Your task to perform on an android device: allow cookies in the chrome app Image 0: 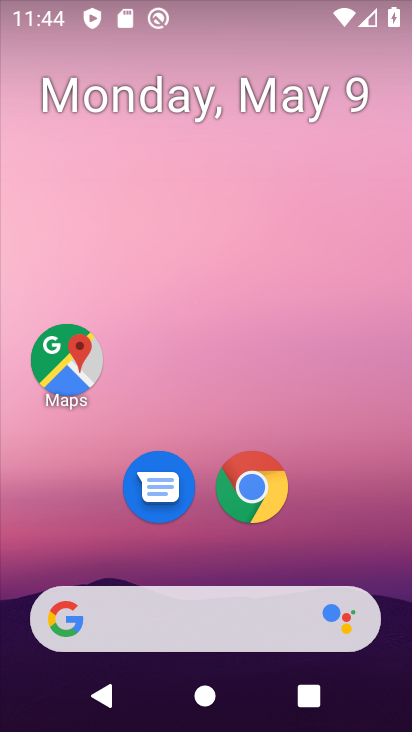
Step 0: click (240, 485)
Your task to perform on an android device: allow cookies in the chrome app Image 1: 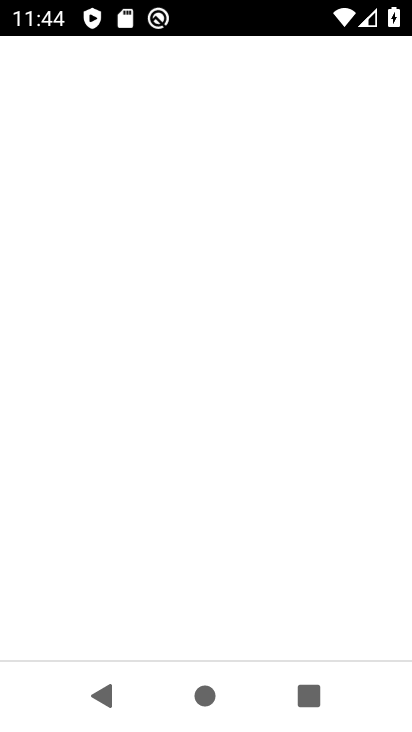
Step 1: click (263, 486)
Your task to perform on an android device: allow cookies in the chrome app Image 2: 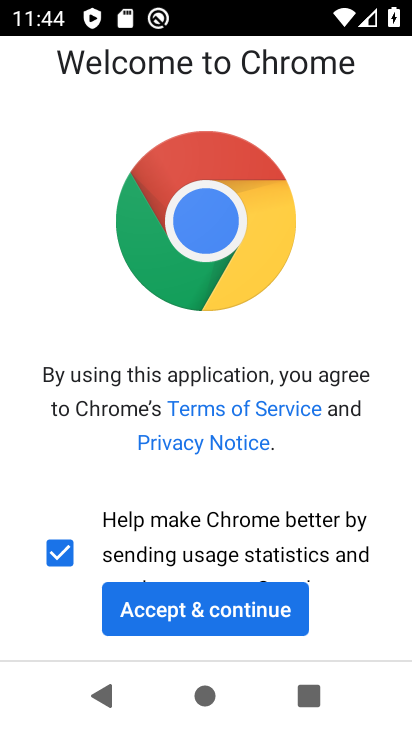
Step 2: click (247, 612)
Your task to perform on an android device: allow cookies in the chrome app Image 3: 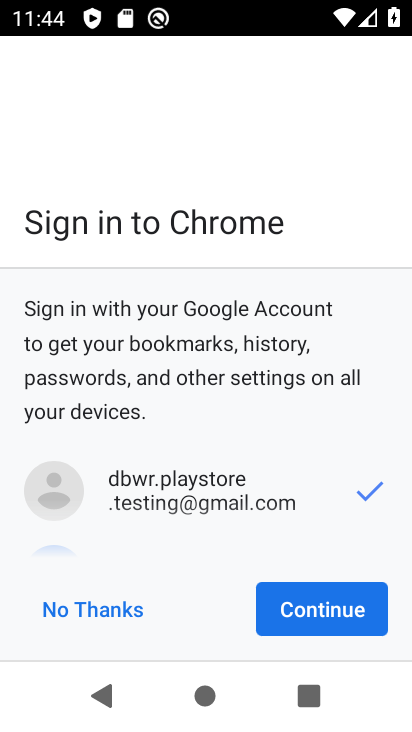
Step 3: click (302, 628)
Your task to perform on an android device: allow cookies in the chrome app Image 4: 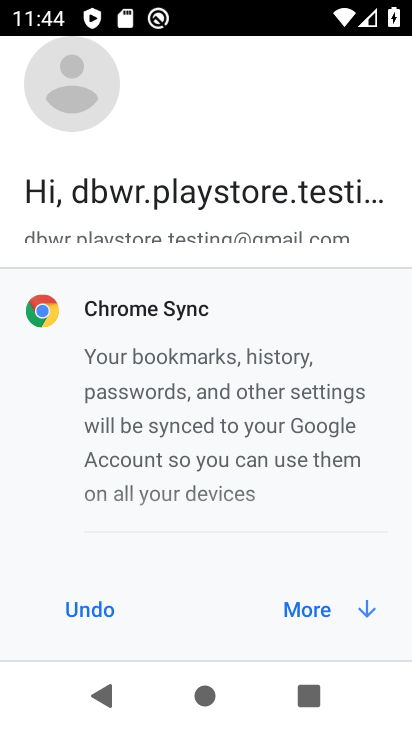
Step 4: click (362, 621)
Your task to perform on an android device: allow cookies in the chrome app Image 5: 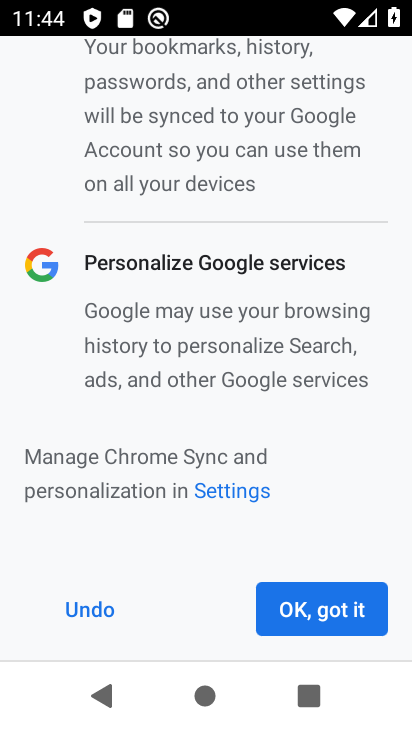
Step 5: click (361, 617)
Your task to perform on an android device: allow cookies in the chrome app Image 6: 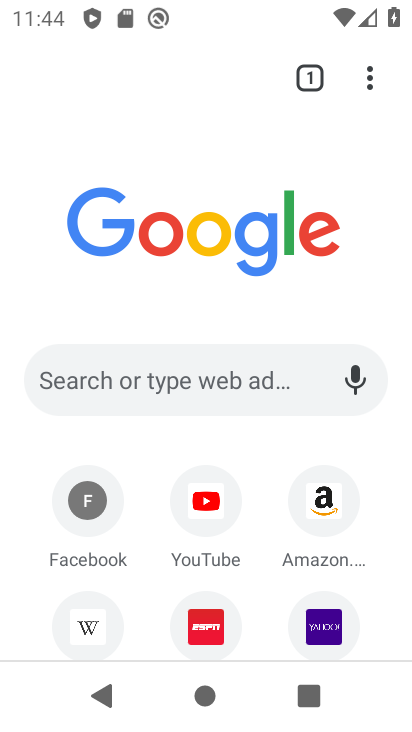
Step 6: drag from (370, 82) to (231, 560)
Your task to perform on an android device: allow cookies in the chrome app Image 7: 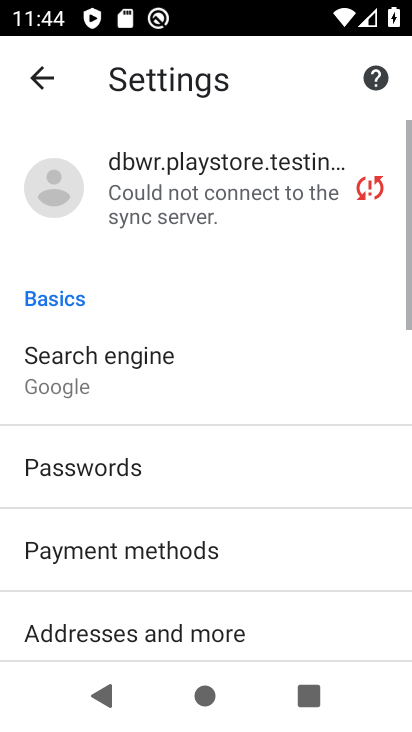
Step 7: drag from (201, 586) to (332, 197)
Your task to perform on an android device: allow cookies in the chrome app Image 8: 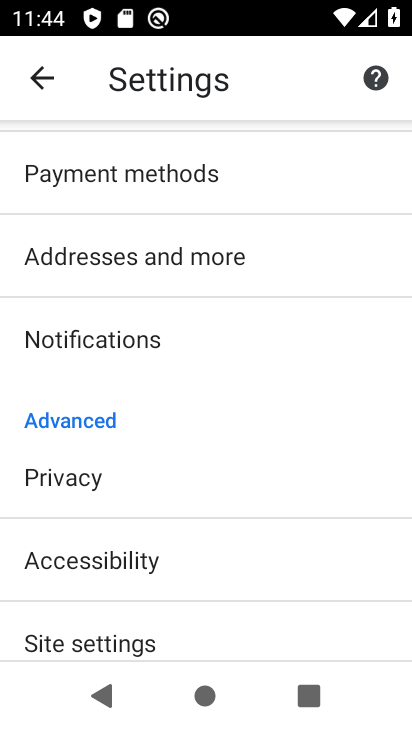
Step 8: click (173, 638)
Your task to perform on an android device: allow cookies in the chrome app Image 9: 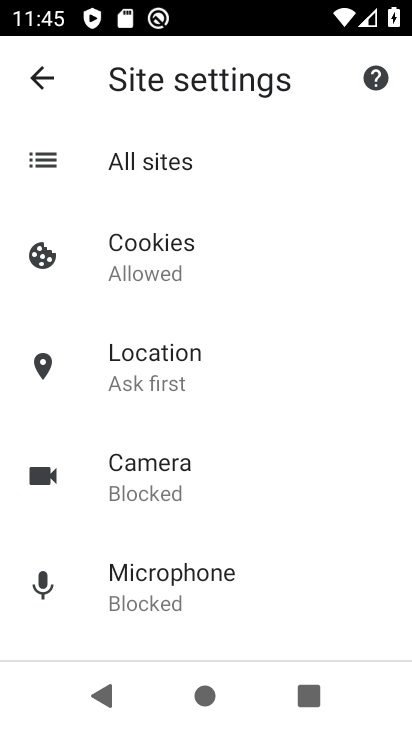
Step 9: click (240, 256)
Your task to perform on an android device: allow cookies in the chrome app Image 10: 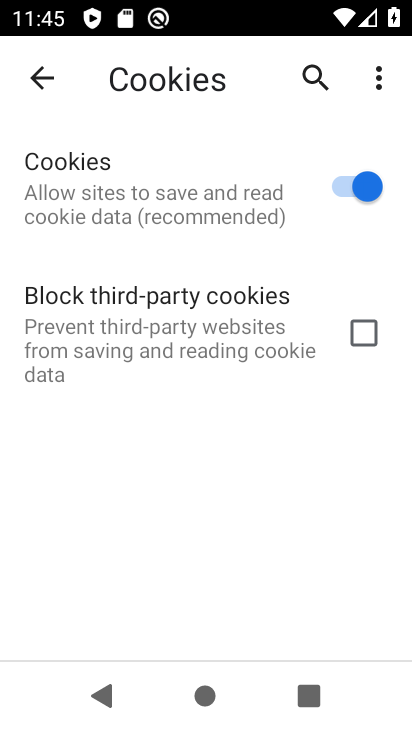
Step 10: task complete